Your task to perform on an android device: turn off priority inbox in the gmail app Image 0: 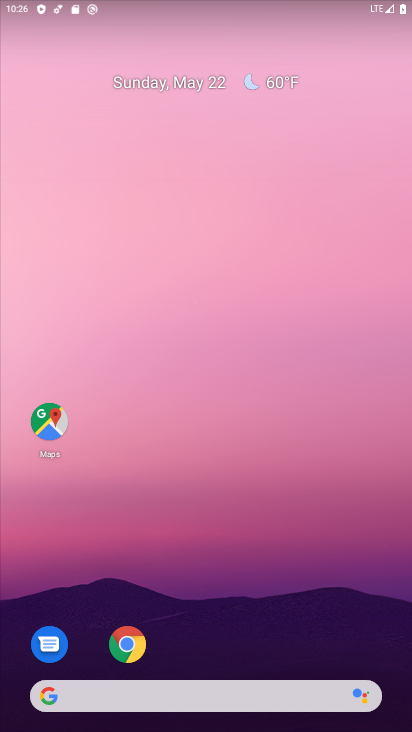
Step 0: drag from (201, 635) to (213, 80)
Your task to perform on an android device: turn off priority inbox in the gmail app Image 1: 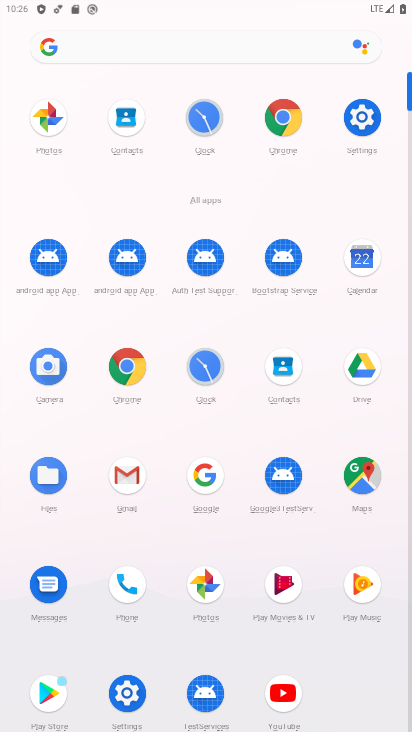
Step 1: click (125, 501)
Your task to perform on an android device: turn off priority inbox in the gmail app Image 2: 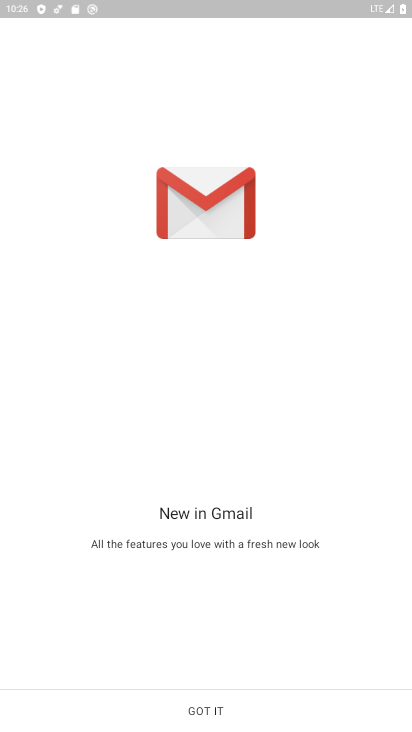
Step 2: click (221, 709)
Your task to perform on an android device: turn off priority inbox in the gmail app Image 3: 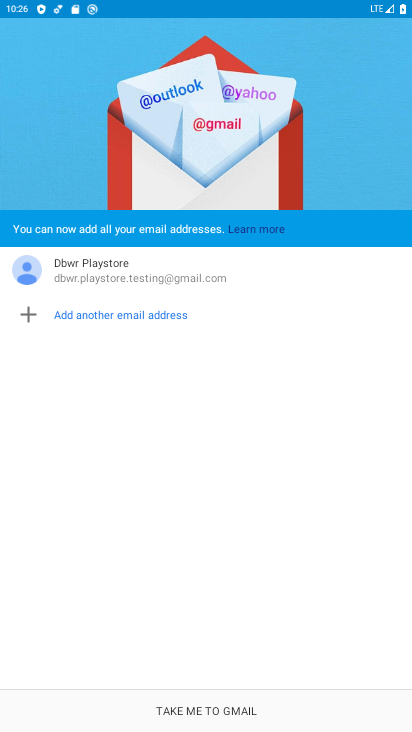
Step 3: click (221, 709)
Your task to perform on an android device: turn off priority inbox in the gmail app Image 4: 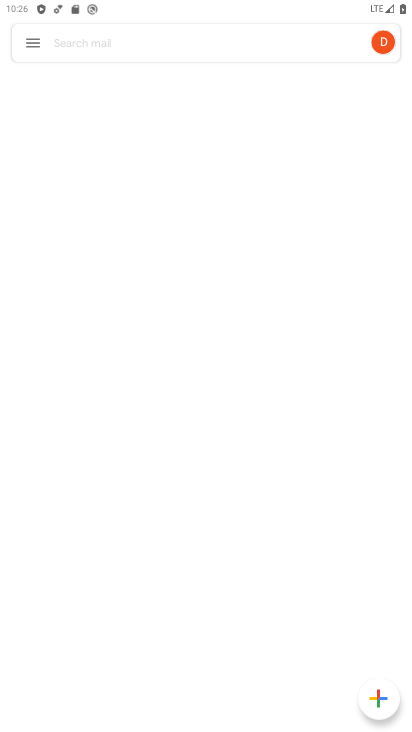
Step 4: click (33, 50)
Your task to perform on an android device: turn off priority inbox in the gmail app Image 5: 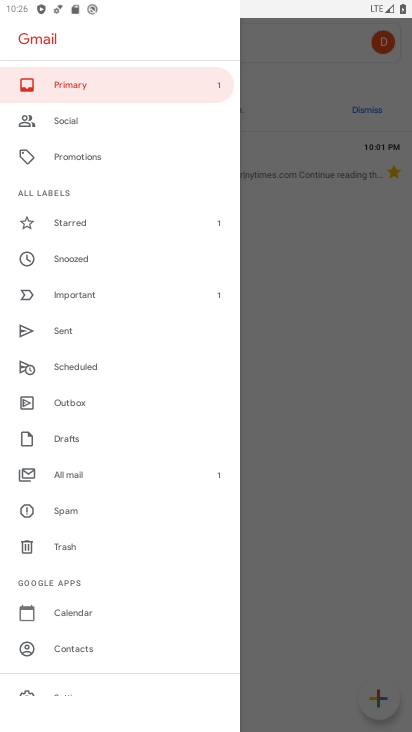
Step 5: drag from (69, 682) to (72, 537)
Your task to perform on an android device: turn off priority inbox in the gmail app Image 6: 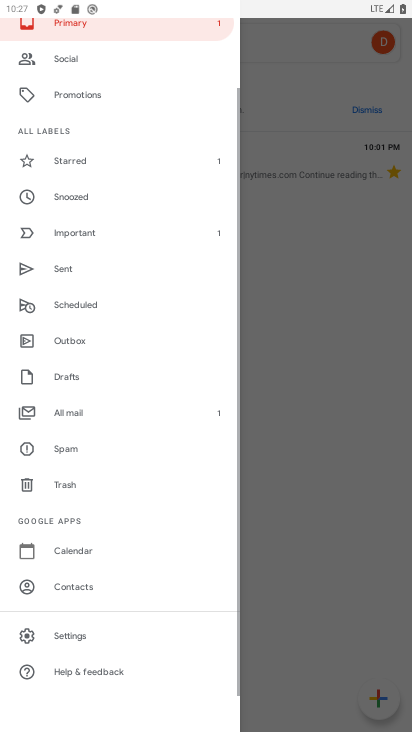
Step 6: click (70, 649)
Your task to perform on an android device: turn off priority inbox in the gmail app Image 7: 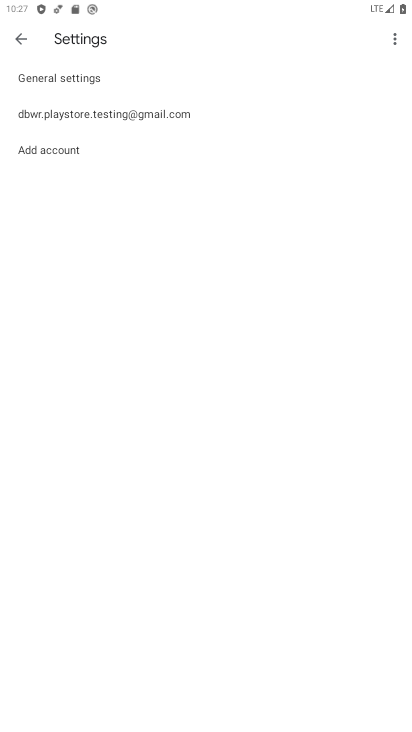
Step 7: click (81, 132)
Your task to perform on an android device: turn off priority inbox in the gmail app Image 8: 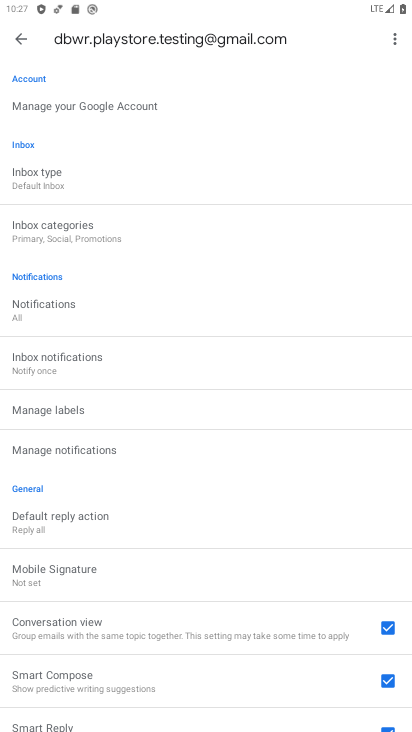
Step 8: click (33, 189)
Your task to perform on an android device: turn off priority inbox in the gmail app Image 9: 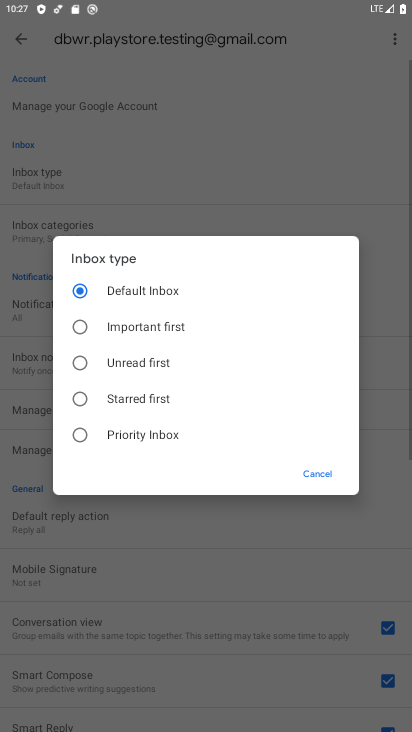
Step 9: click (77, 440)
Your task to perform on an android device: turn off priority inbox in the gmail app Image 10: 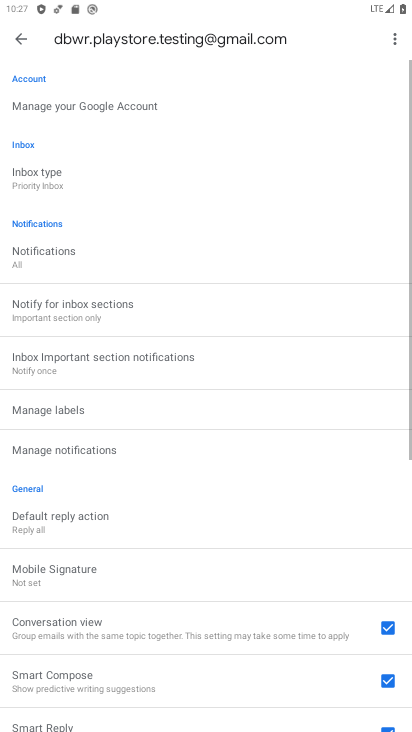
Step 10: task complete